Your task to perform on an android device: Open the stopwatch Image 0: 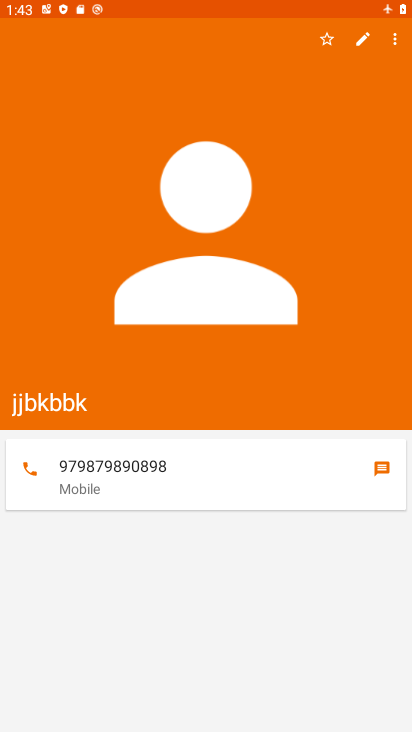
Step 0: press home button
Your task to perform on an android device: Open the stopwatch Image 1: 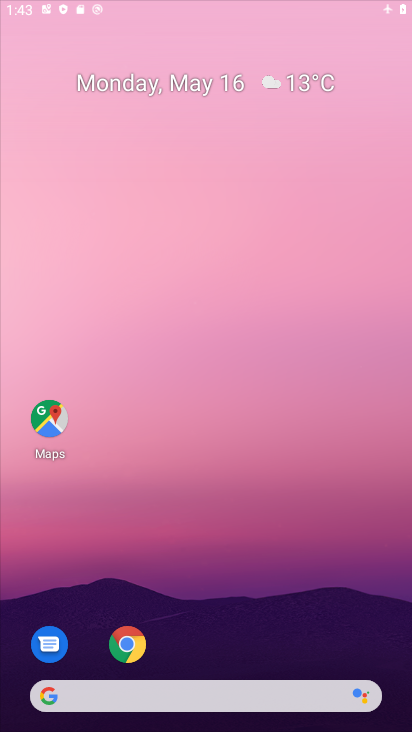
Step 1: drag from (238, 635) to (232, 114)
Your task to perform on an android device: Open the stopwatch Image 2: 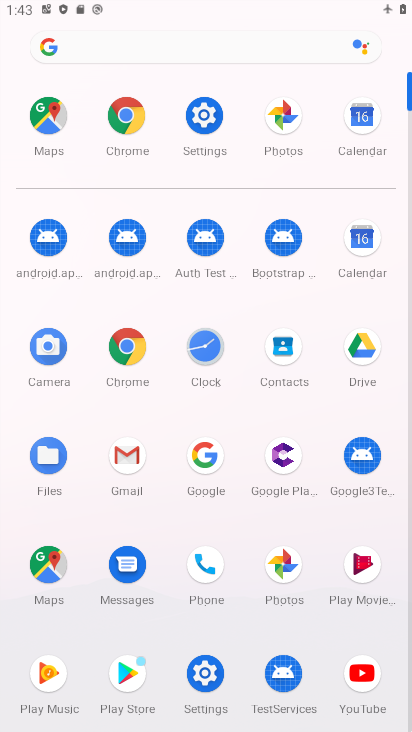
Step 2: click (202, 365)
Your task to perform on an android device: Open the stopwatch Image 3: 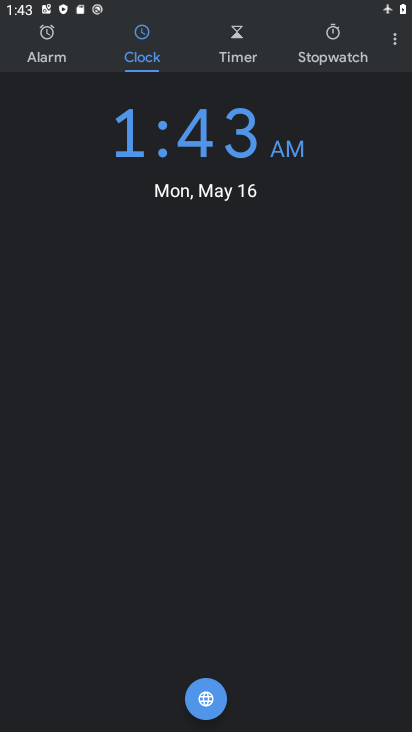
Step 3: click (338, 45)
Your task to perform on an android device: Open the stopwatch Image 4: 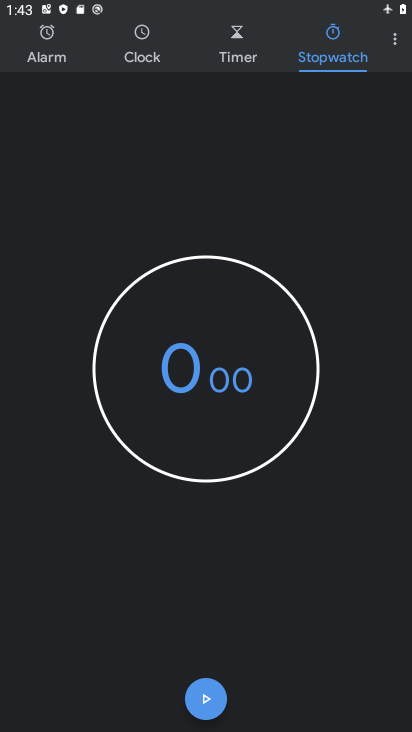
Step 4: click (217, 702)
Your task to perform on an android device: Open the stopwatch Image 5: 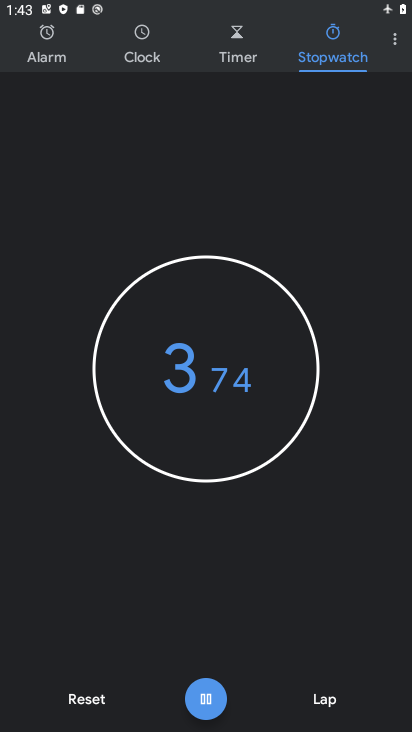
Step 5: task complete